Your task to perform on an android device: toggle data saver in the chrome app Image 0: 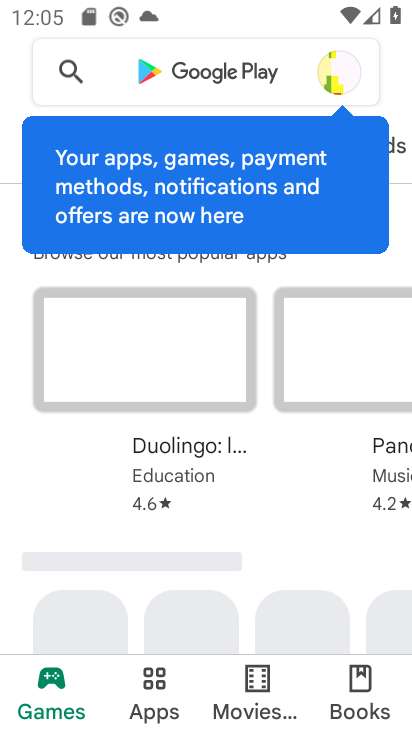
Step 0: press home button
Your task to perform on an android device: toggle data saver in the chrome app Image 1: 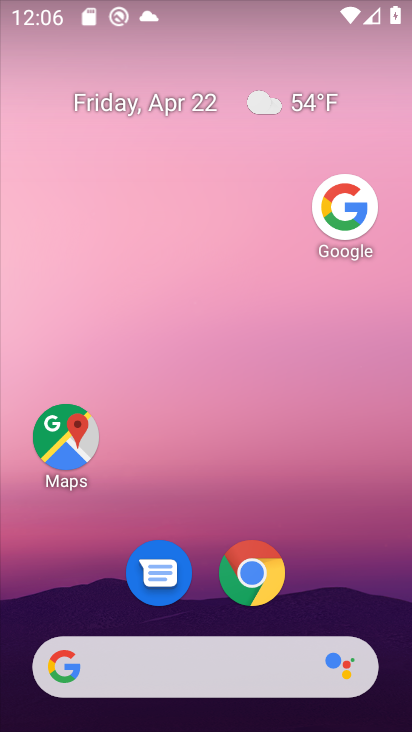
Step 1: drag from (194, 636) to (224, 158)
Your task to perform on an android device: toggle data saver in the chrome app Image 2: 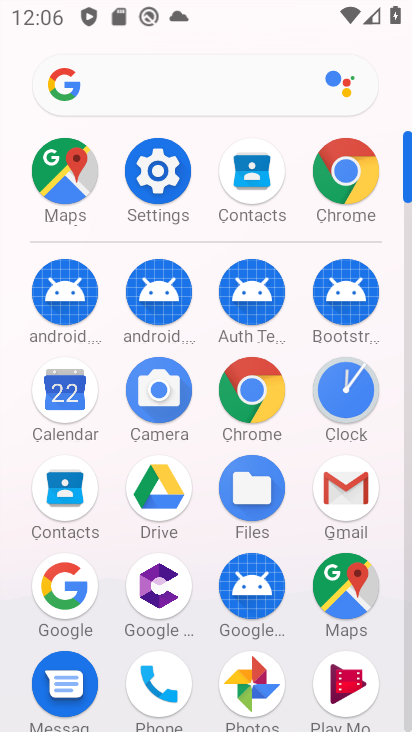
Step 2: click (346, 191)
Your task to perform on an android device: toggle data saver in the chrome app Image 3: 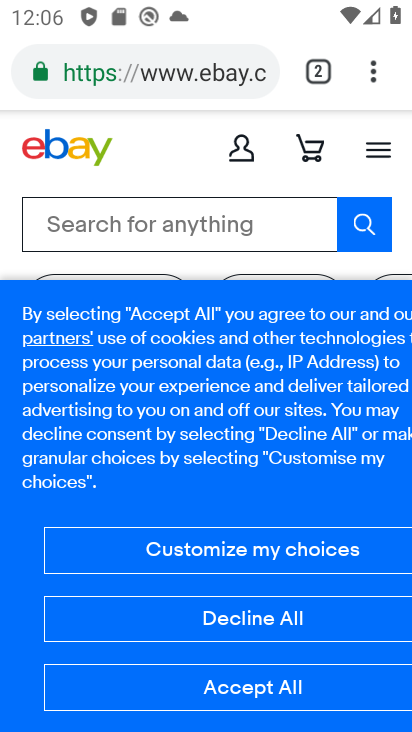
Step 3: drag from (371, 74) to (128, 570)
Your task to perform on an android device: toggle data saver in the chrome app Image 4: 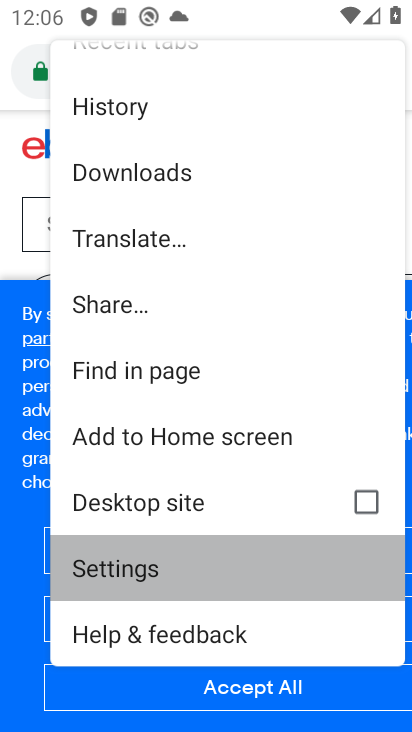
Step 4: click (128, 570)
Your task to perform on an android device: toggle data saver in the chrome app Image 5: 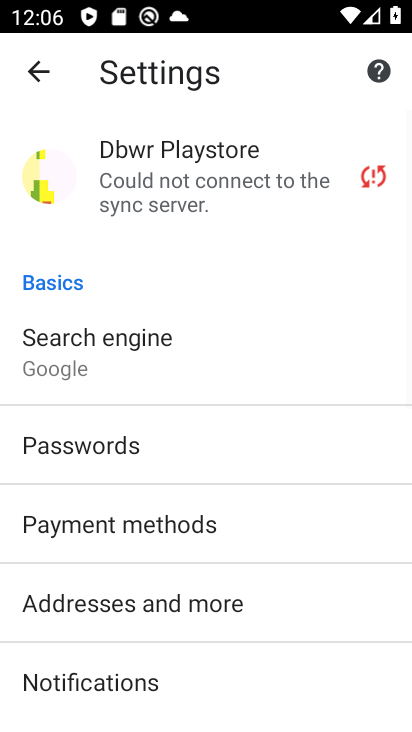
Step 5: drag from (198, 658) to (294, 229)
Your task to perform on an android device: toggle data saver in the chrome app Image 6: 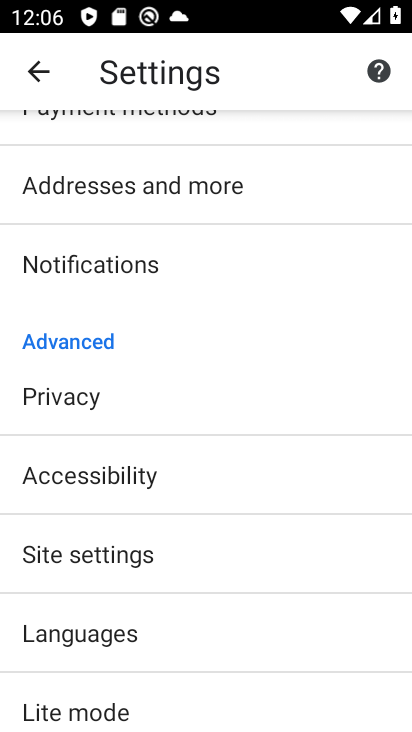
Step 6: drag from (195, 492) to (281, 282)
Your task to perform on an android device: toggle data saver in the chrome app Image 7: 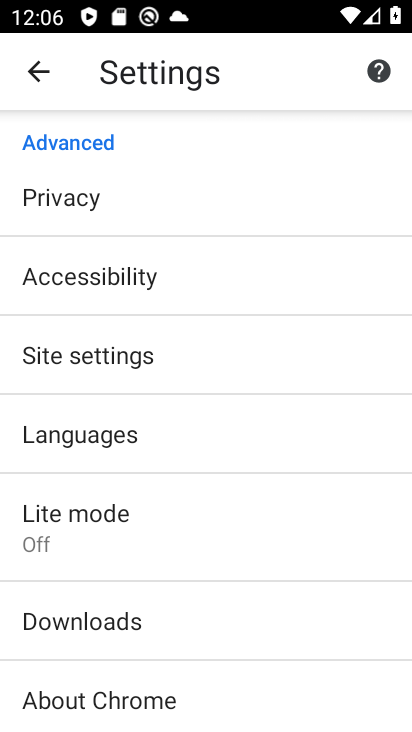
Step 7: click (69, 514)
Your task to perform on an android device: toggle data saver in the chrome app Image 8: 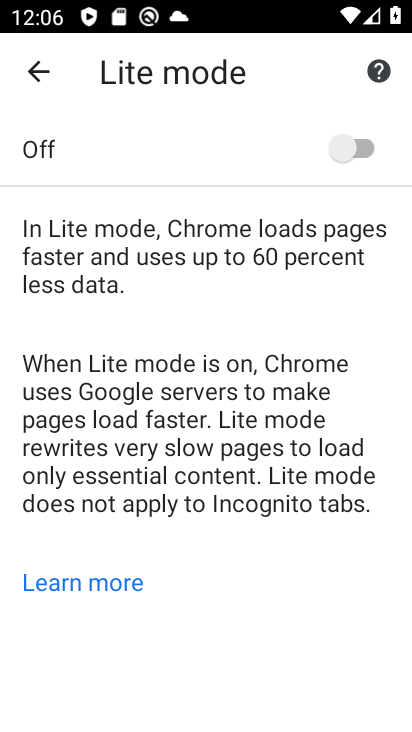
Step 8: click (362, 146)
Your task to perform on an android device: toggle data saver in the chrome app Image 9: 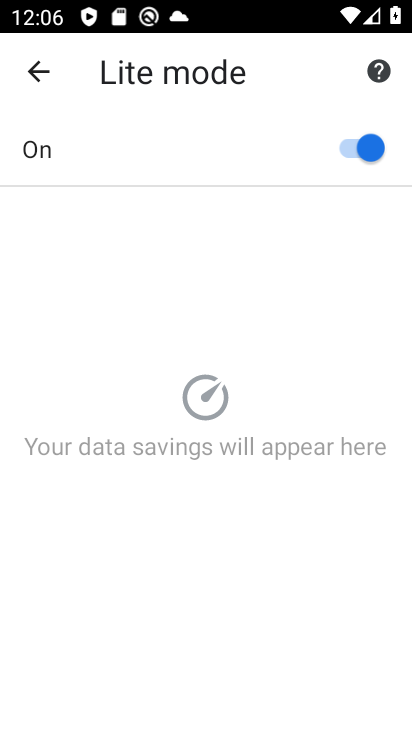
Step 9: task complete